Your task to perform on an android device: empty trash in the gmail app Image 0: 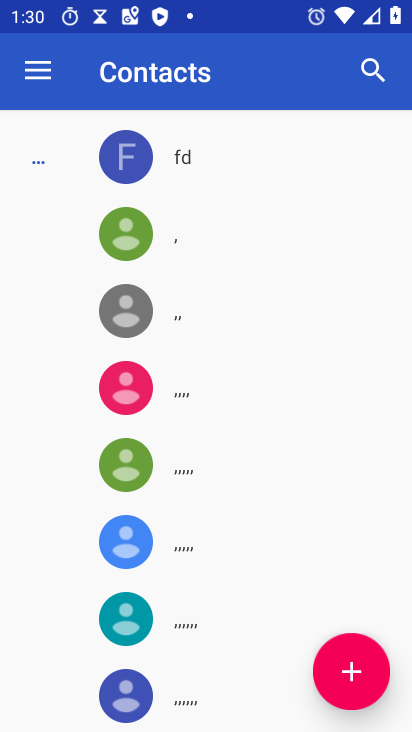
Step 0: press home button
Your task to perform on an android device: empty trash in the gmail app Image 1: 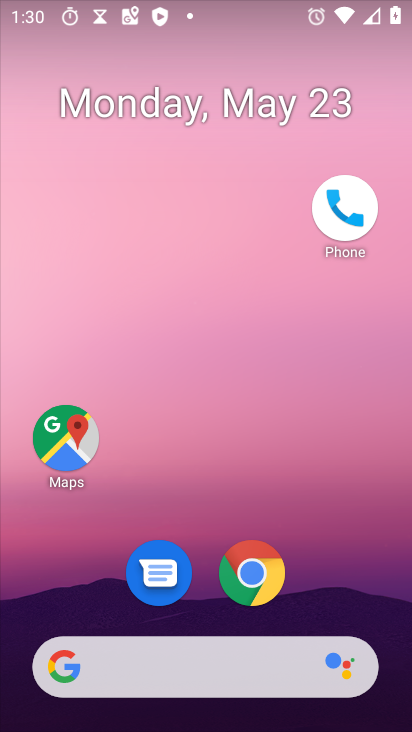
Step 1: drag from (172, 668) to (300, 51)
Your task to perform on an android device: empty trash in the gmail app Image 2: 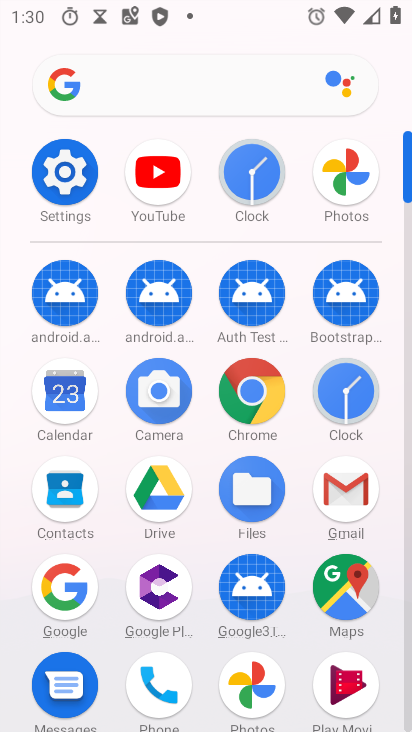
Step 2: click (342, 500)
Your task to perform on an android device: empty trash in the gmail app Image 3: 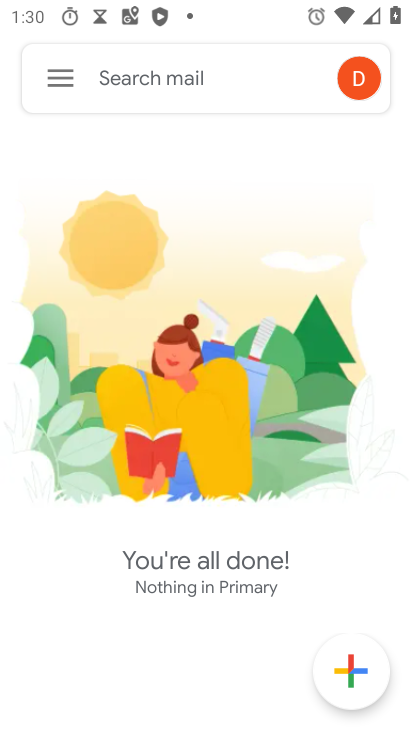
Step 3: click (60, 83)
Your task to perform on an android device: empty trash in the gmail app Image 4: 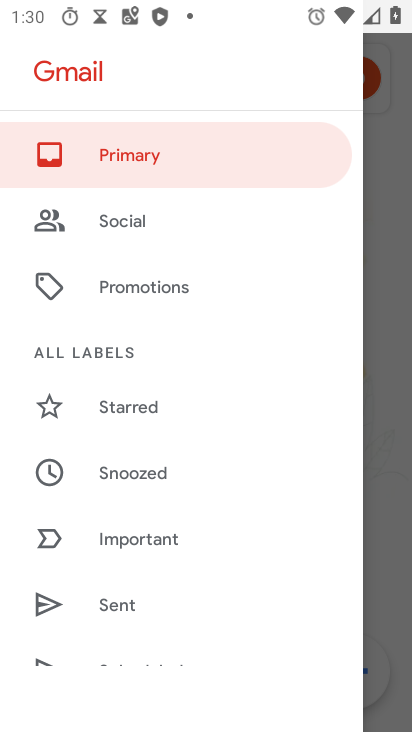
Step 4: drag from (197, 607) to (307, 261)
Your task to perform on an android device: empty trash in the gmail app Image 5: 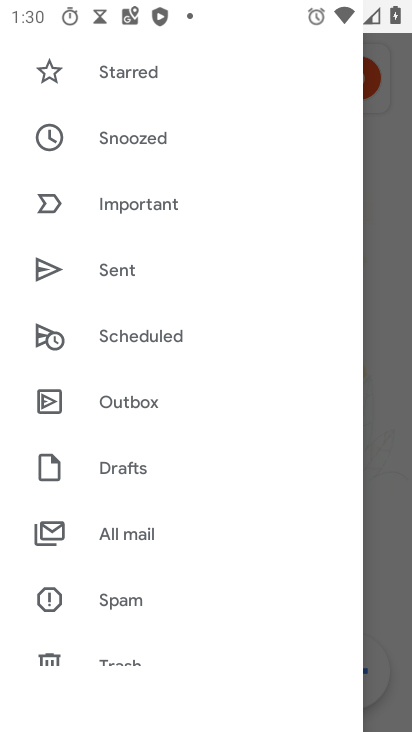
Step 5: drag from (205, 573) to (293, 270)
Your task to perform on an android device: empty trash in the gmail app Image 6: 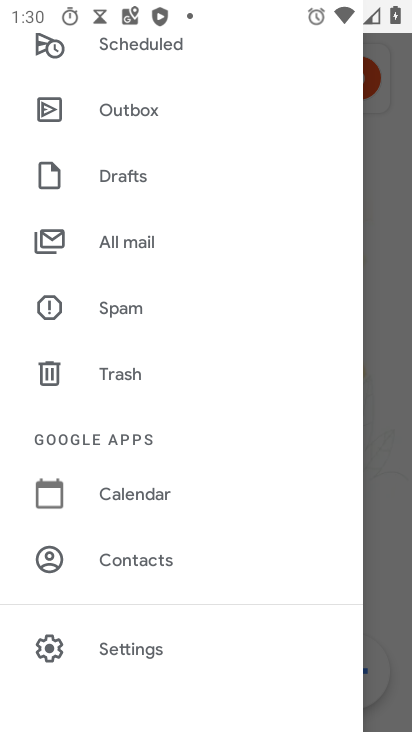
Step 6: click (134, 376)
Your task to perform on an android device: empty trash in the gmail app Image 7: 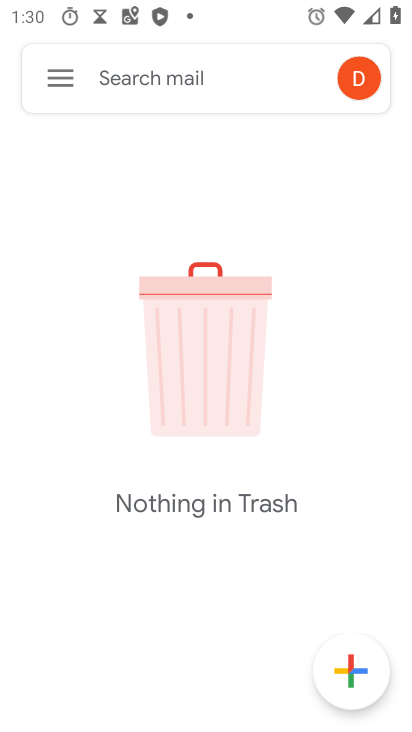
Step 7: task complete